Your task to perform on an android device: Open Android settings Image 0: 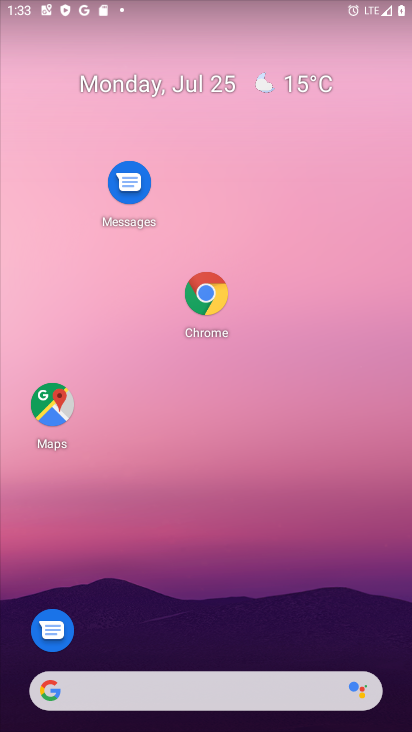
Step 0: drag from (269, 616) to (244, 210)
Your task to perform on an android device: Open Android settings Image 1: 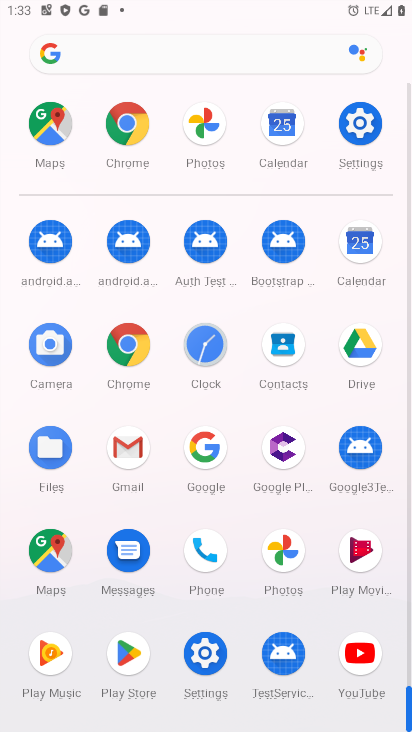
Step 1: click (358, 127)
Your task to perform on an android device: Open Android settings Image 2: 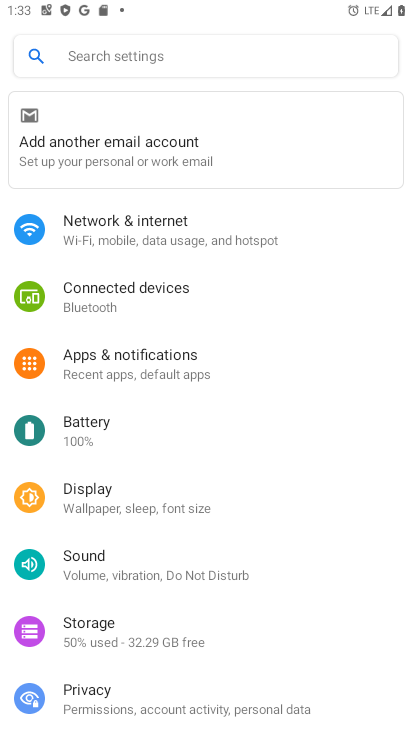
Step 2: drag from (145, 583) to (99, 32)
Your task to perform on an android device: Open Android settings Image 3: 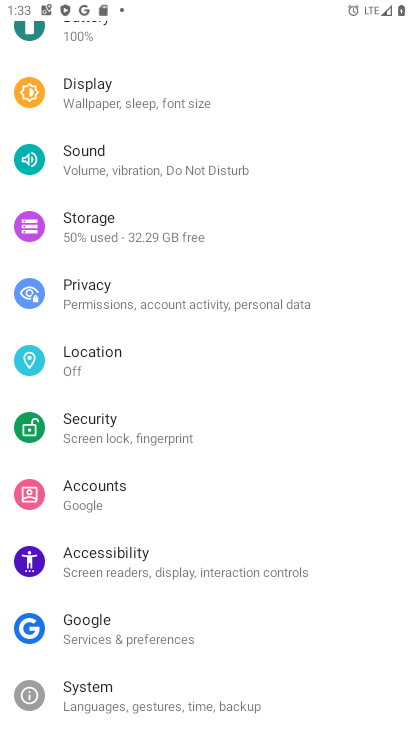
Step 3: drag from (114, 654) to (112, 267)
Your task to perform on an android device: Open Android settings Image 4: 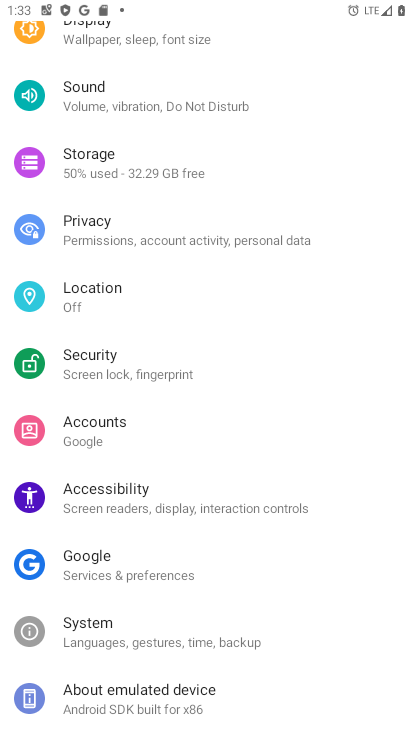
Step 4: click (95, 674)
Your task to perform on an android device: Open Android settings Image 5: 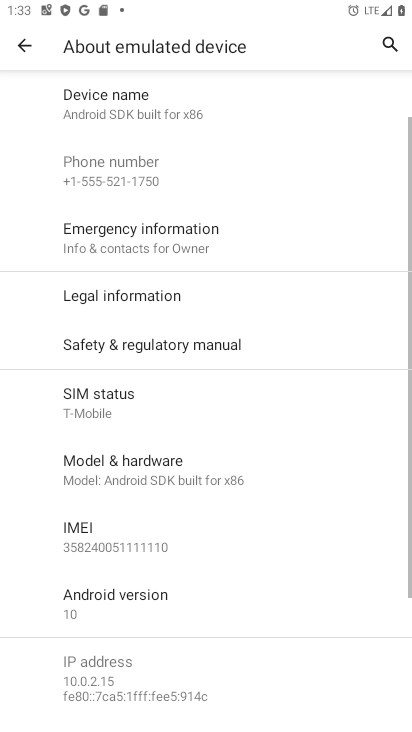
Step 5: click (89, 598)
Your task to perform on an android device: Open Android settings Image 6: 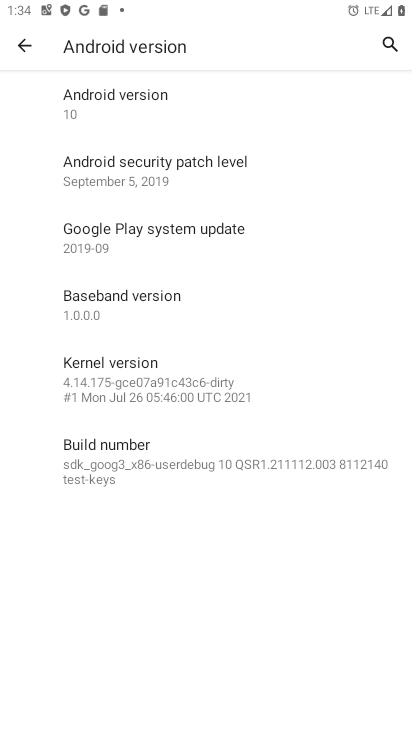
Step 6: task complete